Your task to perform on an android device: When is my next appointment? Image 0: 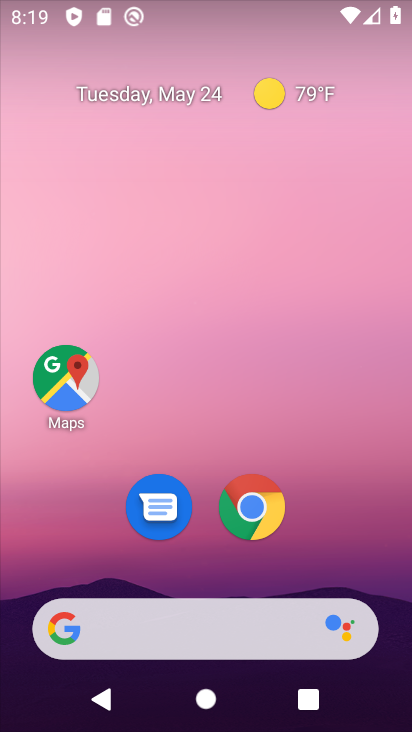
Step 0: drag from (287, 633) to (230, 144)
Your task to perform on an android device: When is my next appointment? Image 1: 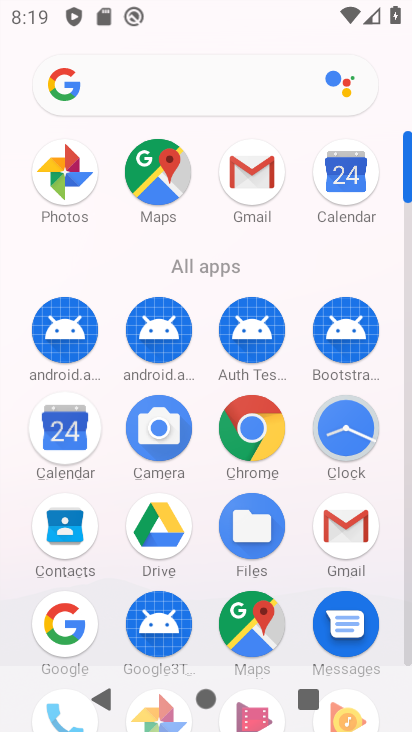
Step 1: click (78, 432)
Your task to perform on an android device: When is my next appointment? Image 2: 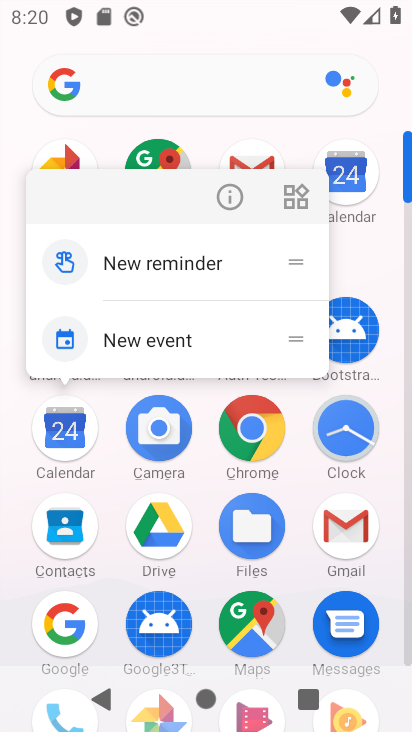
Step 2: click (158, 340)
Your task to perform on an android device: When is my next appointment? Image 3: 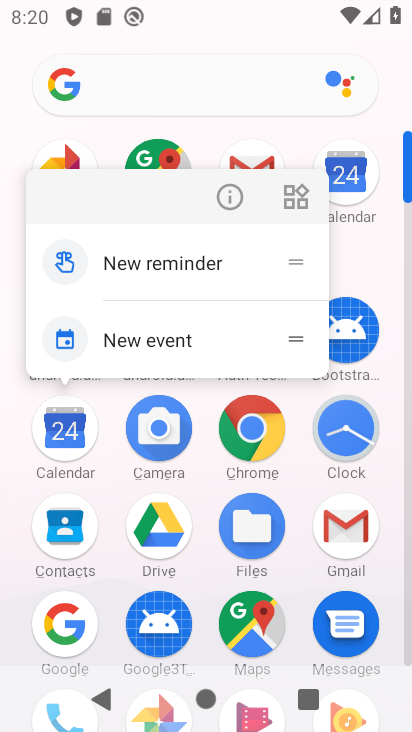
Step 3: click (158, 340)
Your task to perform on an android device: When is my next appointment? Image 4: 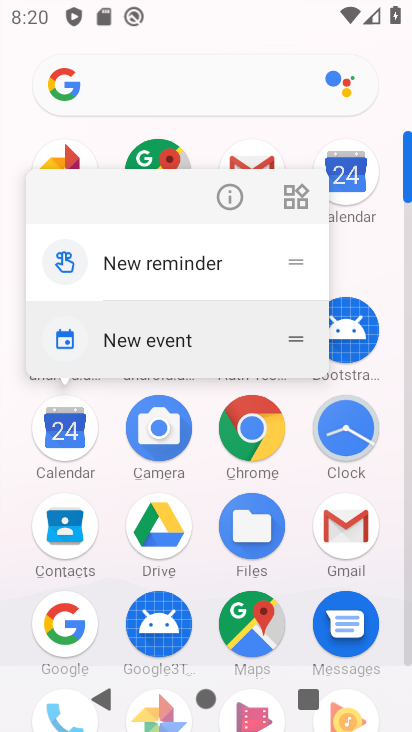
Step 4: click (161, 340)
Your task to perform on an android device: When is my next appointment? Image 5: 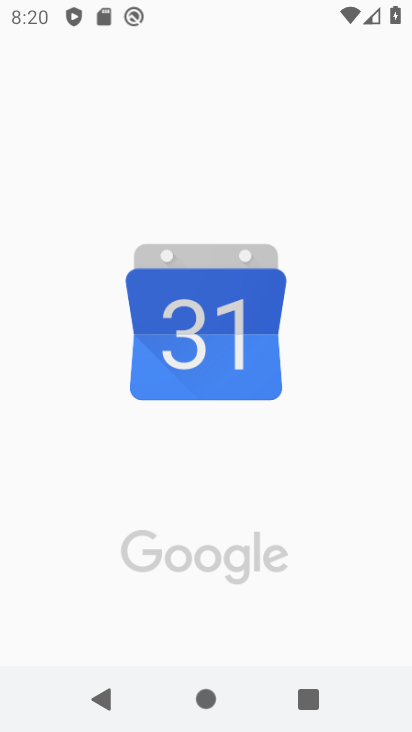
Step 5: click (162, 338)
Your task to perform on an android device: When is my next appointment? Image 6: 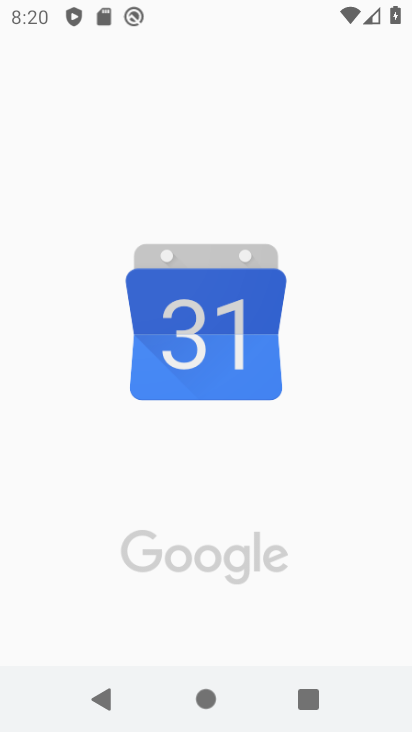
Step 6: click (163, 338)
Your task to perform on an android device: When is my next appointment? Image 7: 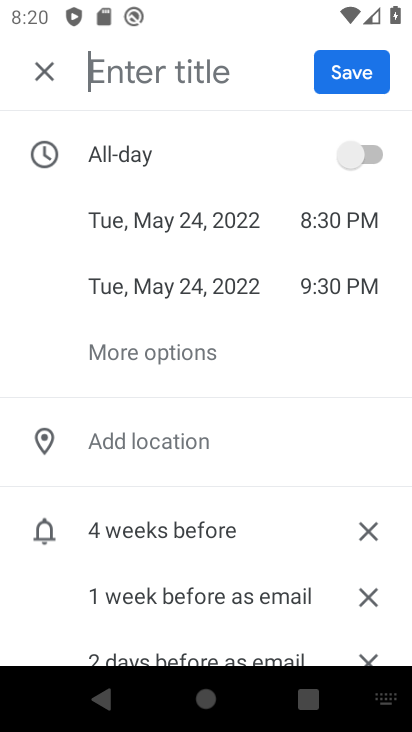
Step 7: click (43, 71)
Your task to perform on an android device: When is my next appointment? Image 8: 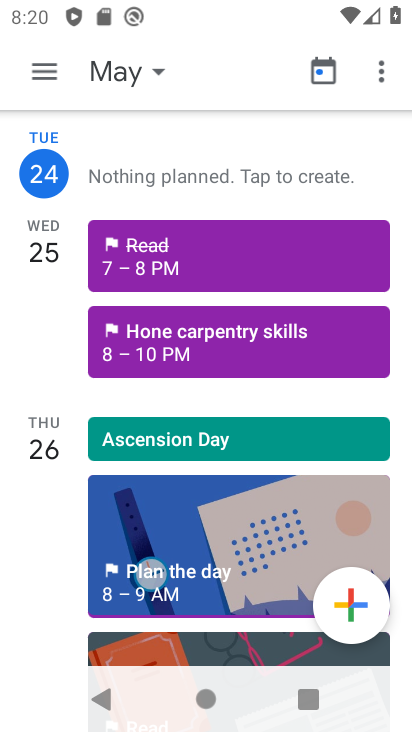
Step 8: task complete